Your task to perform on an android device: check storage Image 0: 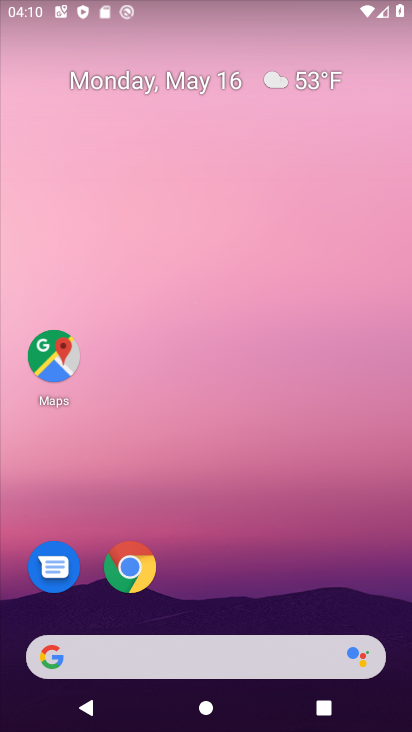
Step 0: drag from (231, 629) to (309, 40)
Your task to perform on an android device: check storage Image 1: 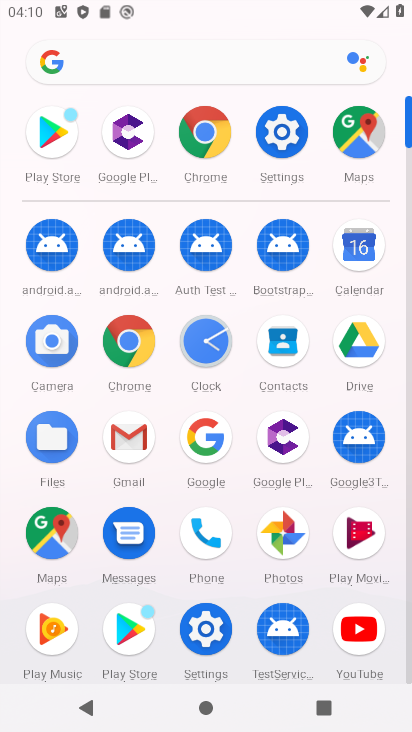
Step 1: click (295, 117)
Your task to perform on an android device: check storage Image 2: 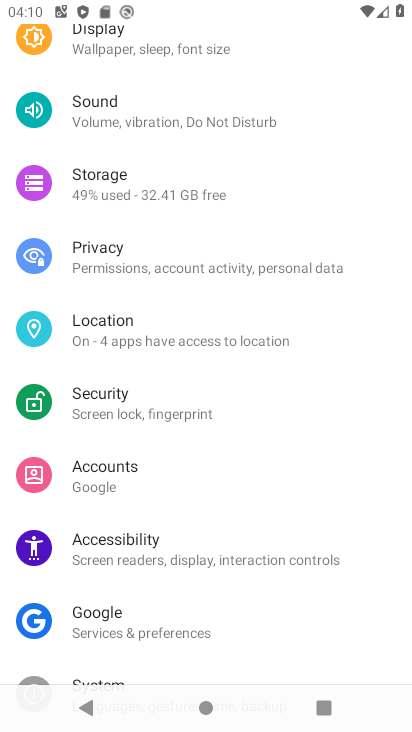
Step 2: click (230, 176)
Your task to perform on an android device: check storage Image 3: 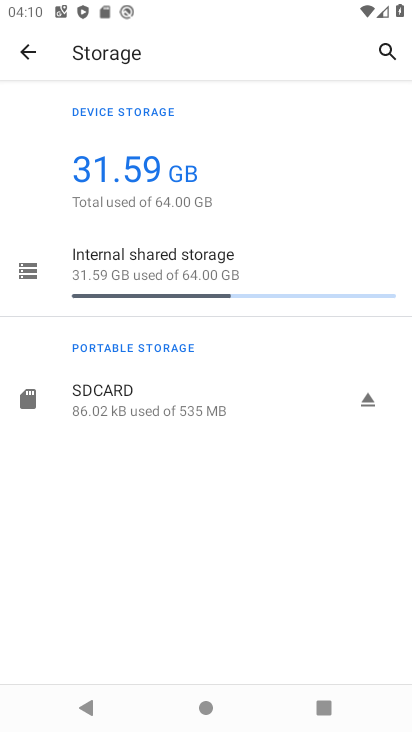
Step 3: task complete